Your task to perform on an android device: Go to calendar. Show me events next week Image 0: 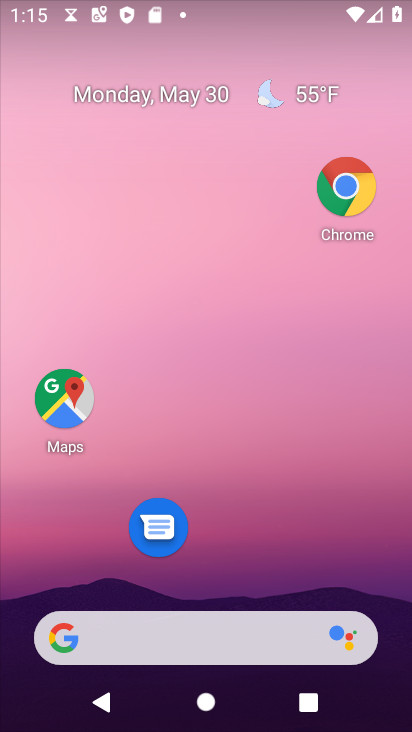
Step 0: drag from (203, 510) to (193, 161)
Your task to perform on an android device: Go to calendar. Show me events next week Image 1: 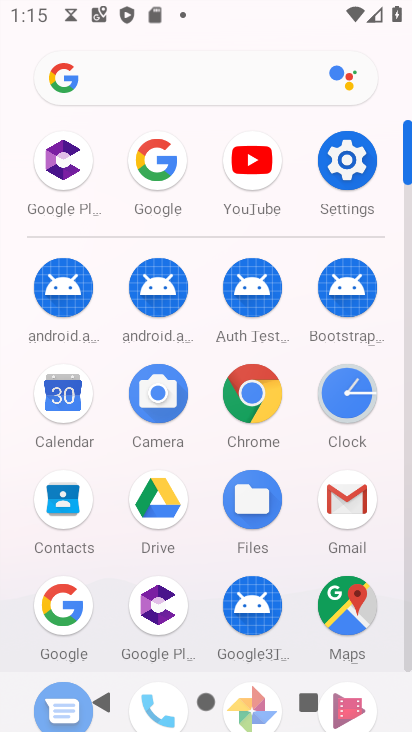
Step 1: click (58, 391)
Your task to perform on an android device: Go to calendar. Show me events next week Image 2: 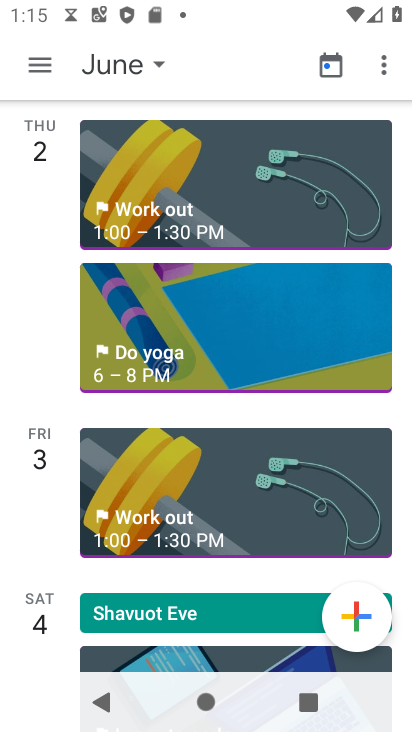
Step 2: click (115, 51)
Your task to perform on an android device: Go to calendar. Show me events next week Image 3: 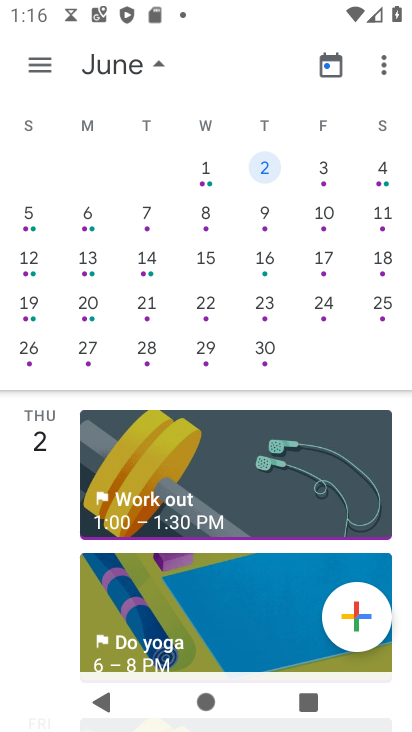
Step 3: click (323, 170)
Your task to perform on an android device: Go to calendar. Show me events next week Image 4: 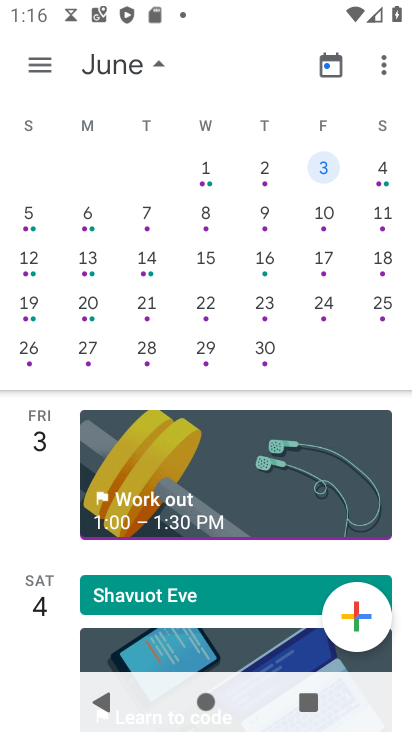
Step 4: task complete